Your task to perform on an android device: Go to battery settings Image 0: 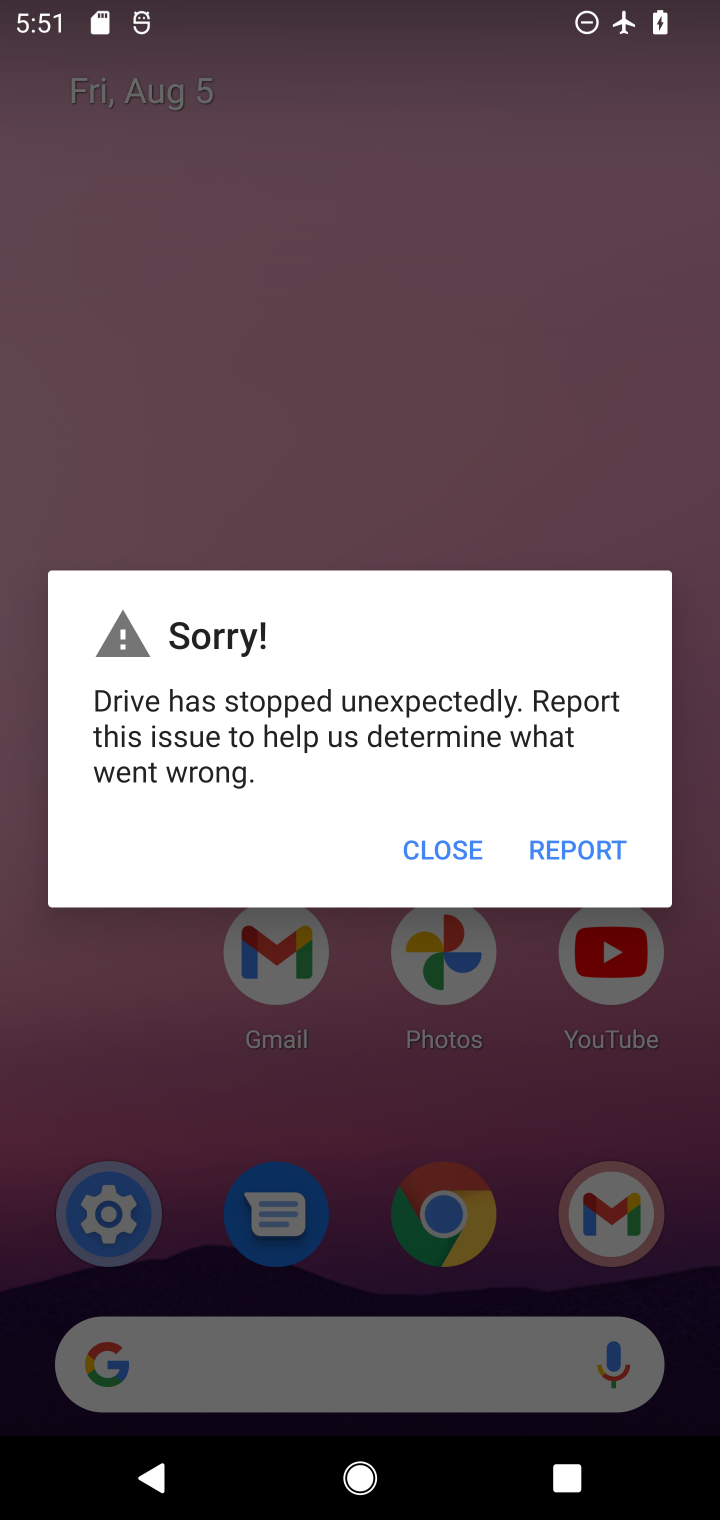
Step 0: press home button
Your task to perform on an android device: Go to battery settings Image 1: 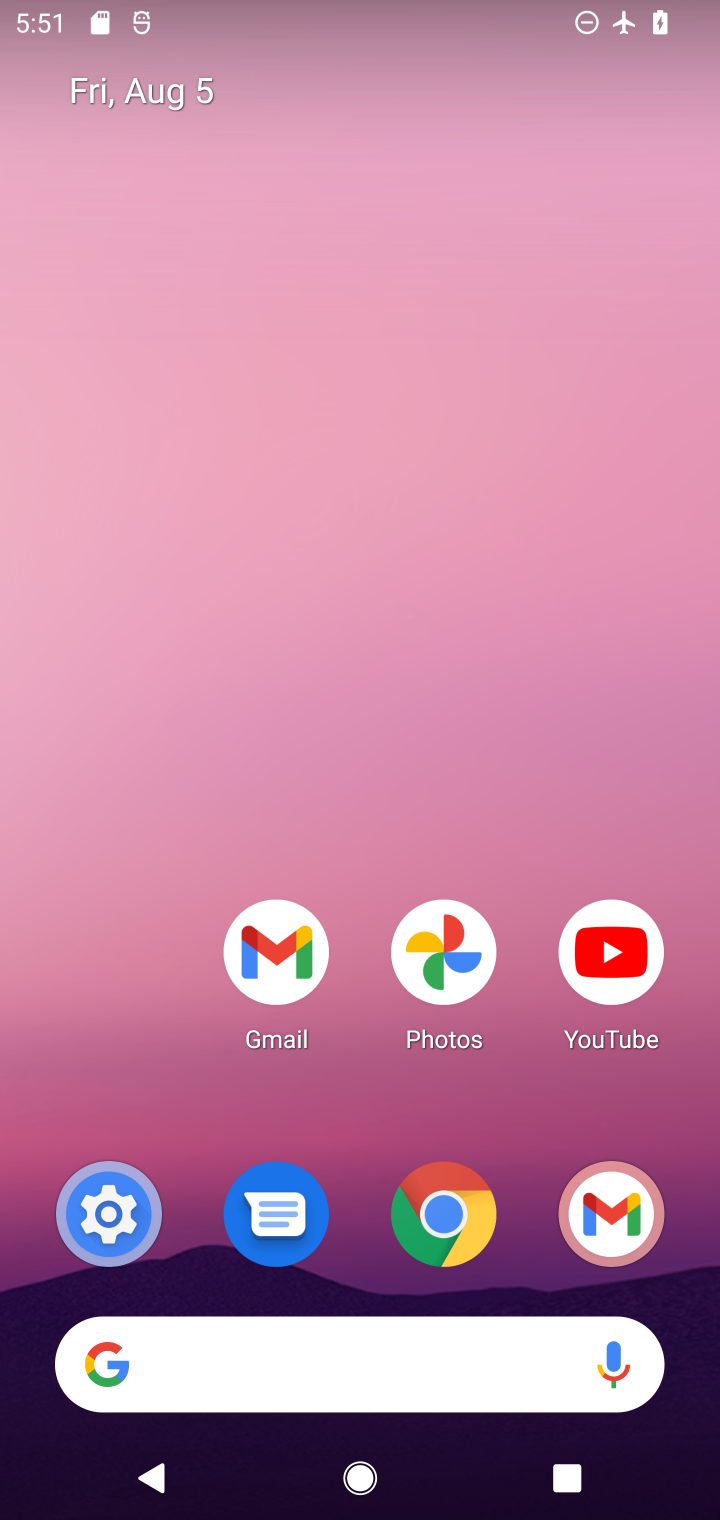
Step 1: click (107, 1220)
Your task to perform on an android device: Go to battery settings Image 2: 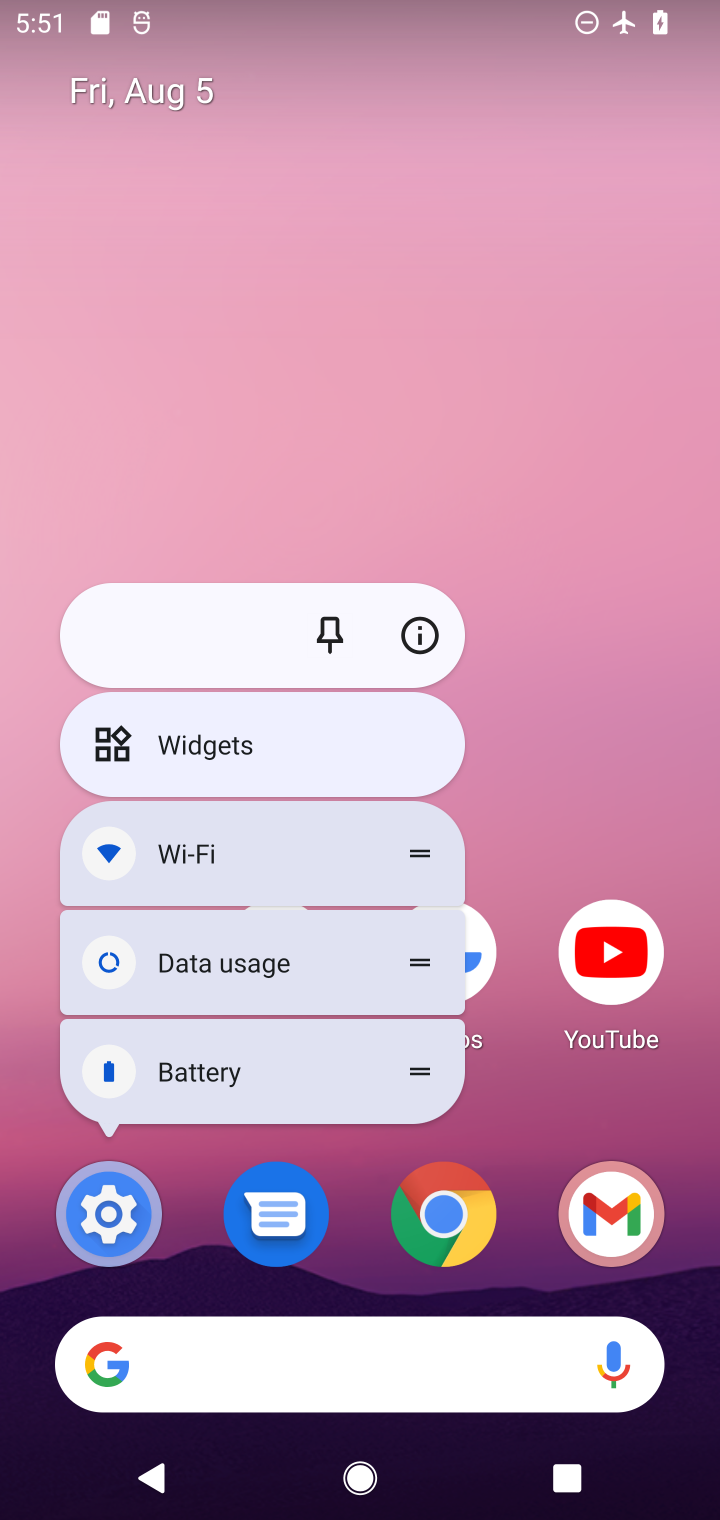
Step 2: click (107, 1223)
Your task to perform on an android device: Go to battery settings Image 3: 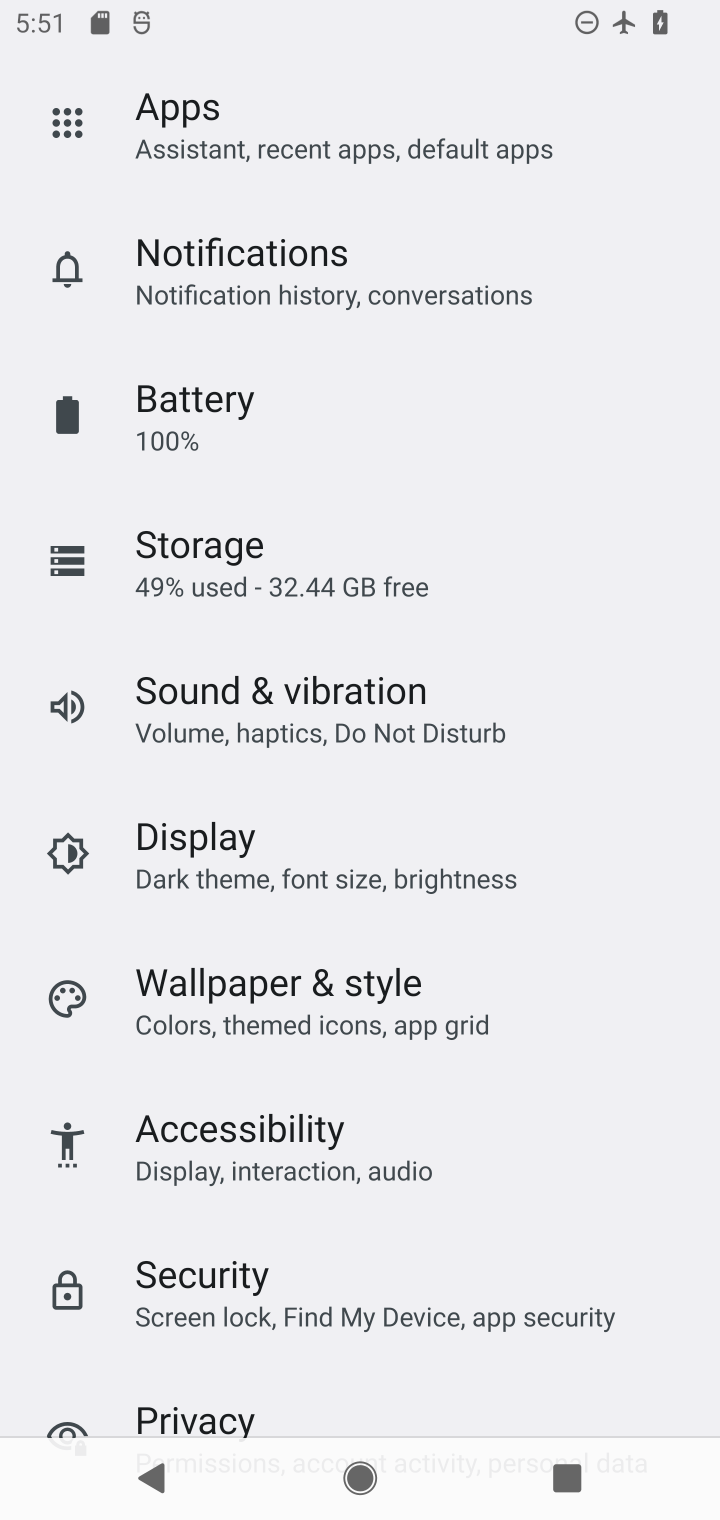
Step 3: click (279, 430)
Your task to perform on an android device: Go to battery settings Image 4: 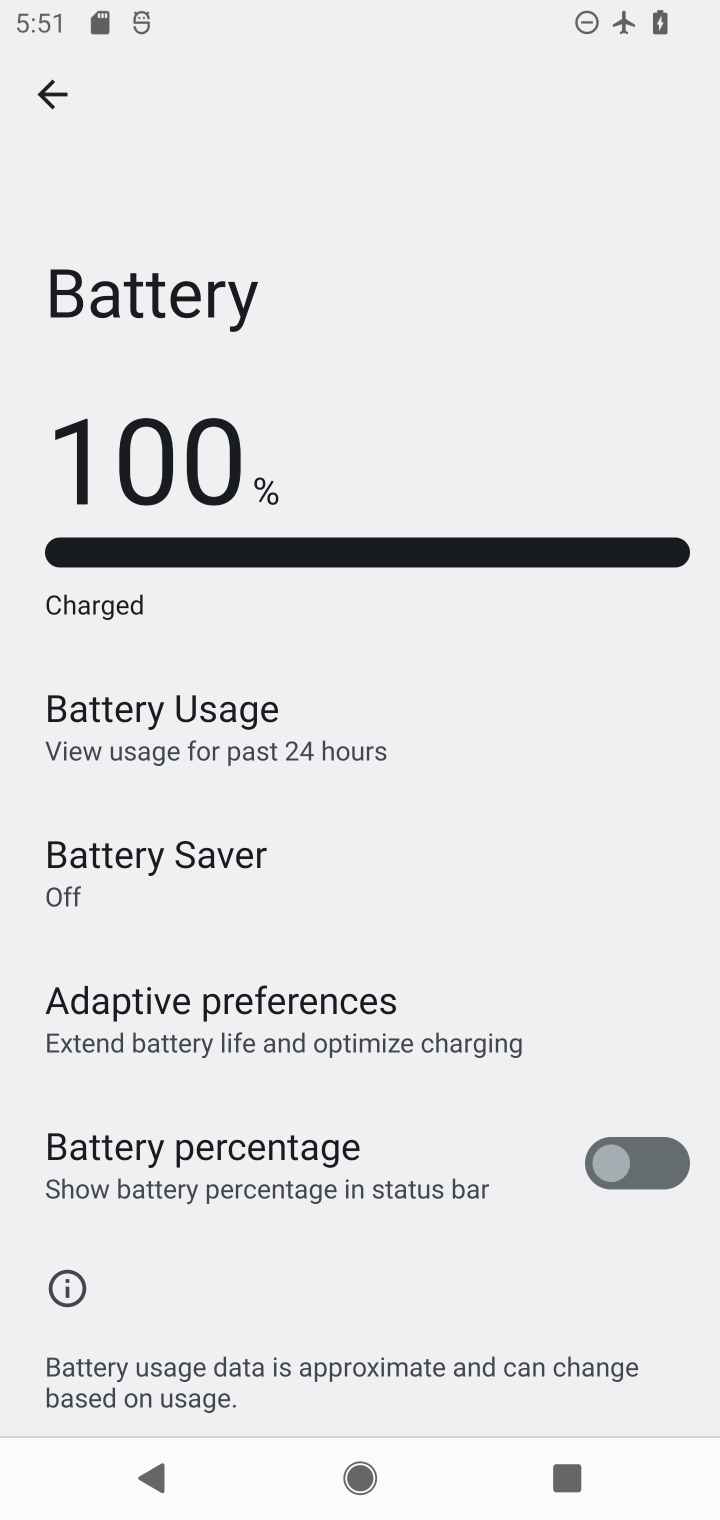
Step 4: task complete